Your task to perform on an android device: Go to Android settings Image 0: 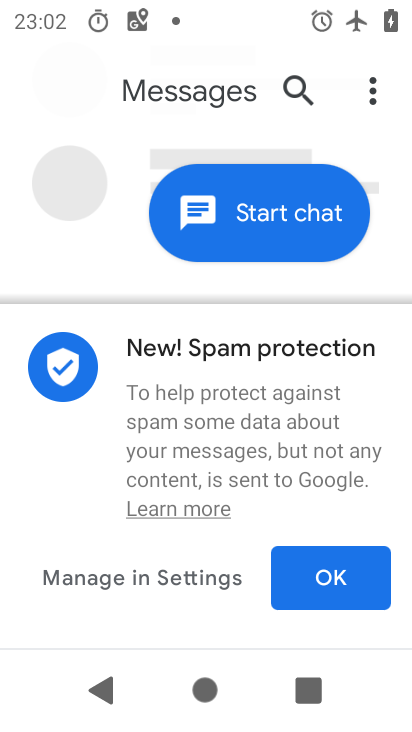
Step 0: press home button
Your task to perform on an android device: Go to Android settings Image 1: 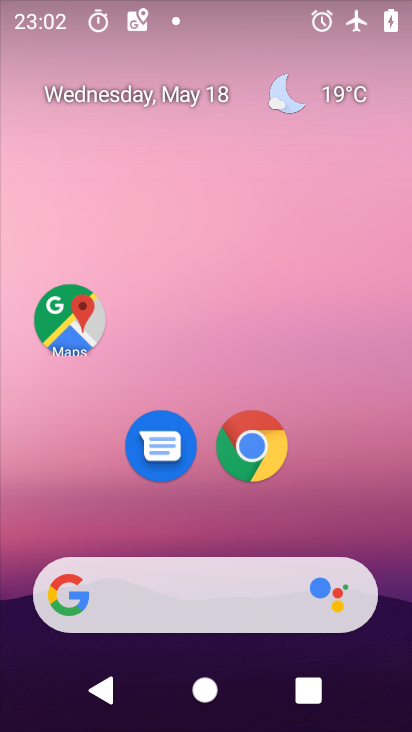
Step 1: drag from (205, 594) to (280, 70)
Your task to perform on an android device: Go to Android settings Image 2: 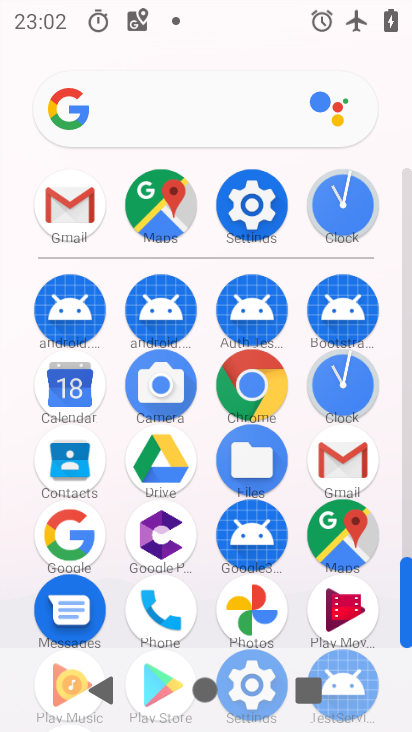
Step 2: click (252, 216)
Your task to perform on an android device: Go to Android settings Image 3: 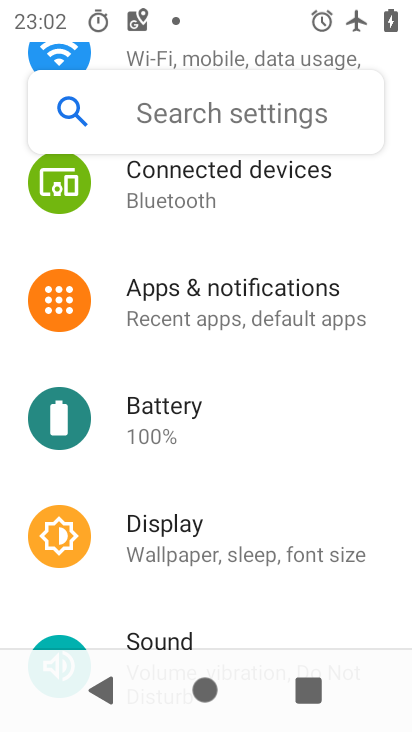
Step 3: task complete